Your task to perform on an android device: Clear the cart on costco. Add razer blade to the cart on costco Image 0: 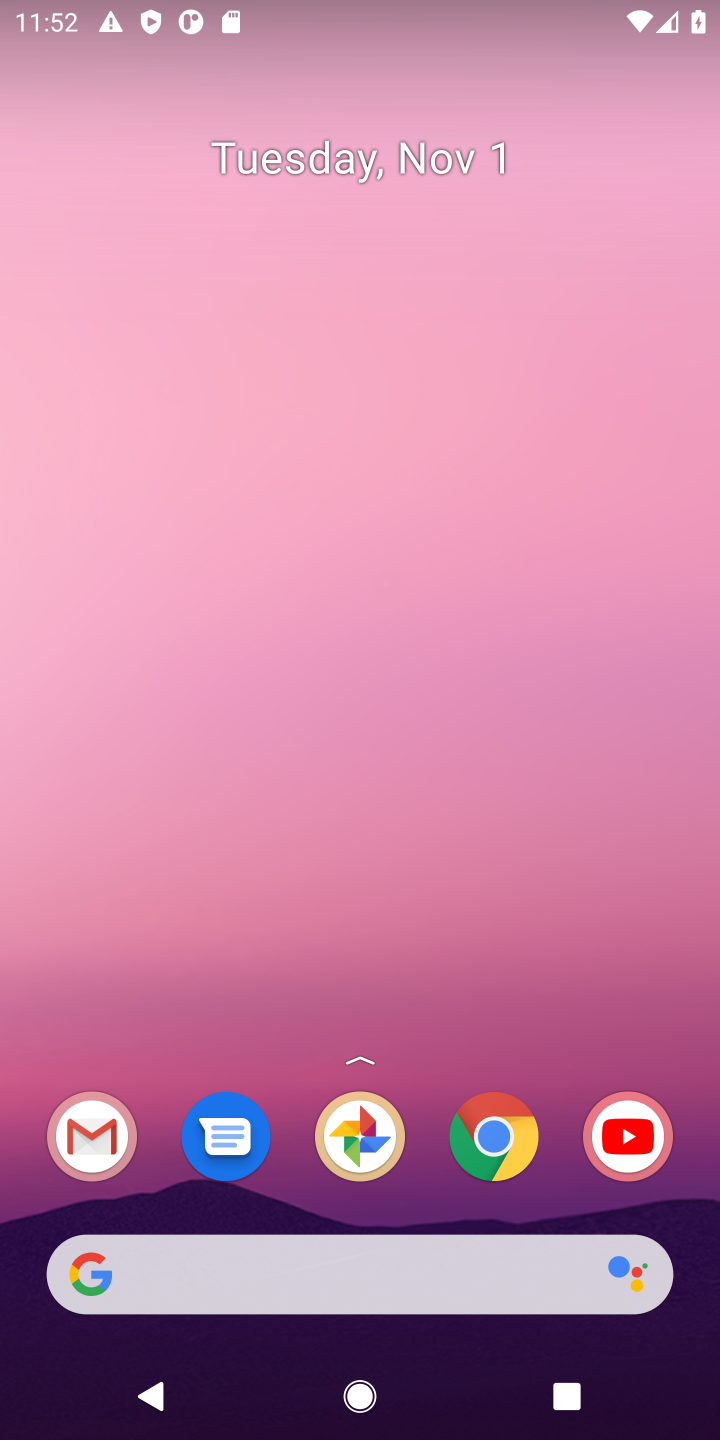
Step 0: click (481, 1143)
Your task to perform on an android device: Clear the cart on costco. Add razer blade to the cart on costco Image 1: 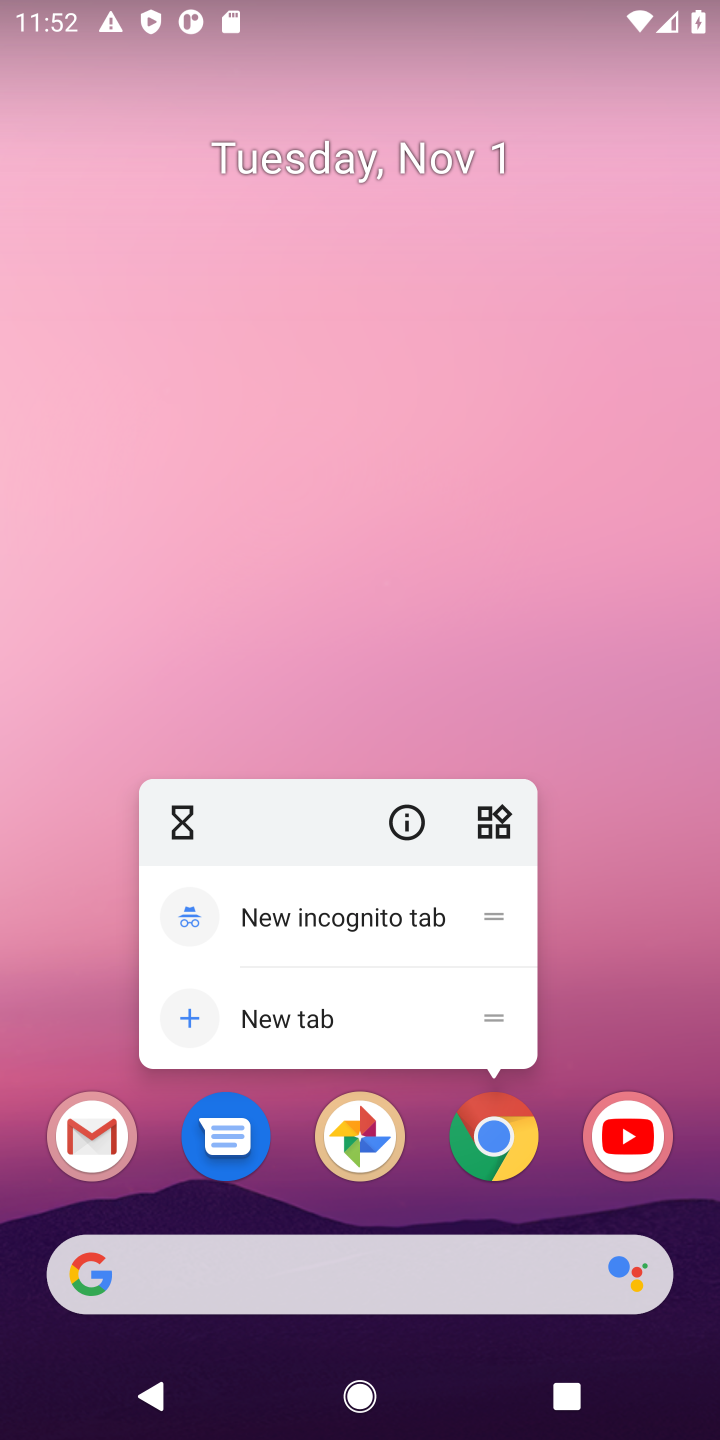
Step 1: click (499, 1169)
Your task to perform on an android device: Clear the cart on costco. Add razer blade to the cart on costco Image 2: 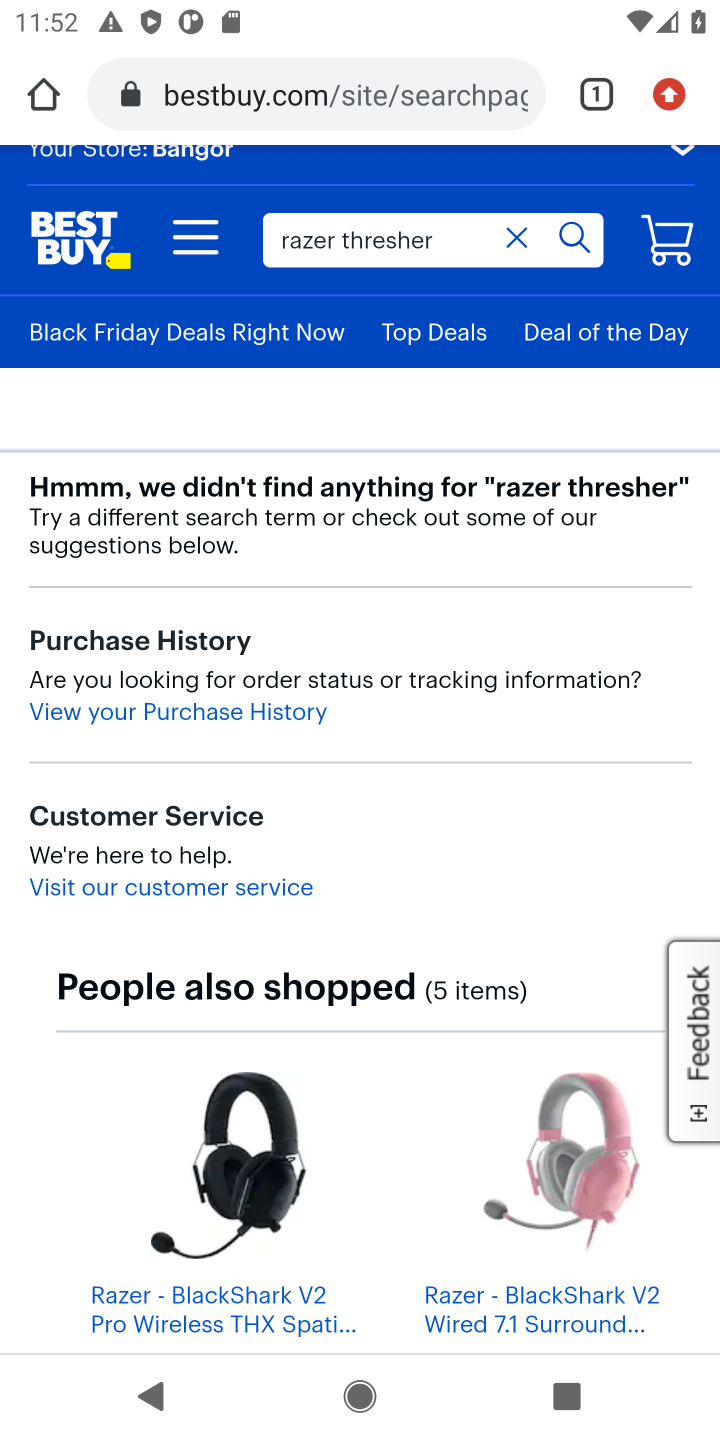
Step 2: click (487, 82)
Your task to perform on an android device: Clear the cart on costco. Add razer blade to the cart on costco Image 3: 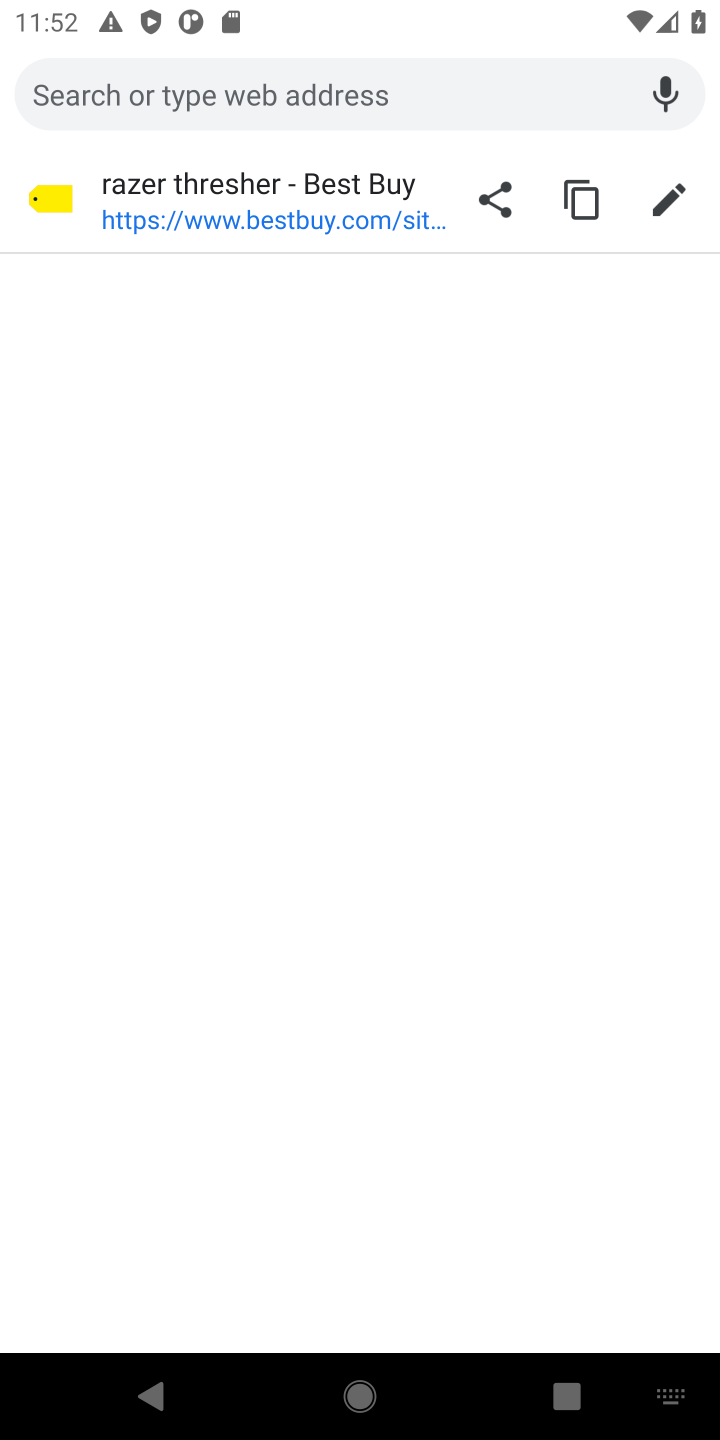
Step 3: type "costoco"
Your task to perform on an android device: Clear the cart on costco. Add razer blade to the cart on costco Image 4: 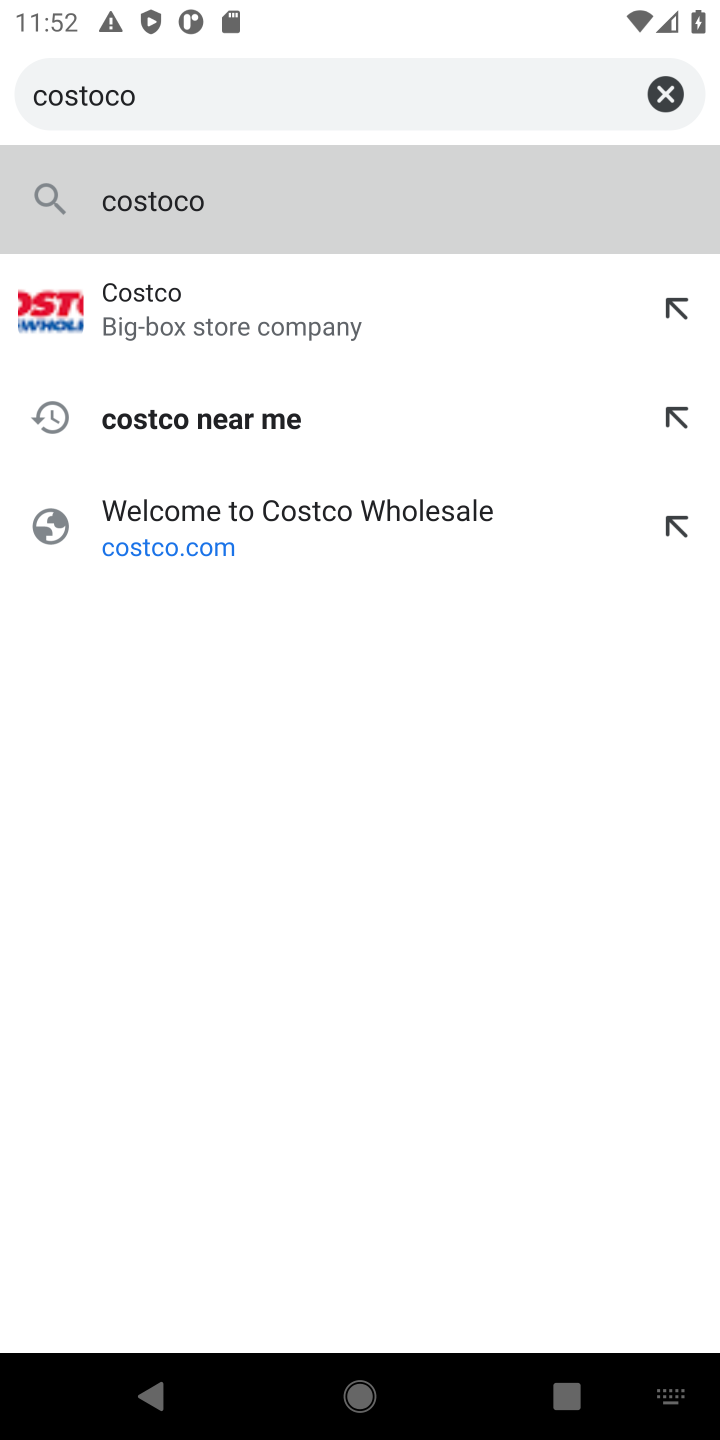
Step 4: type ""
Your task to perform on an android device: Clear the cart on costco. Add razer blade to the cart on costco Image 5: 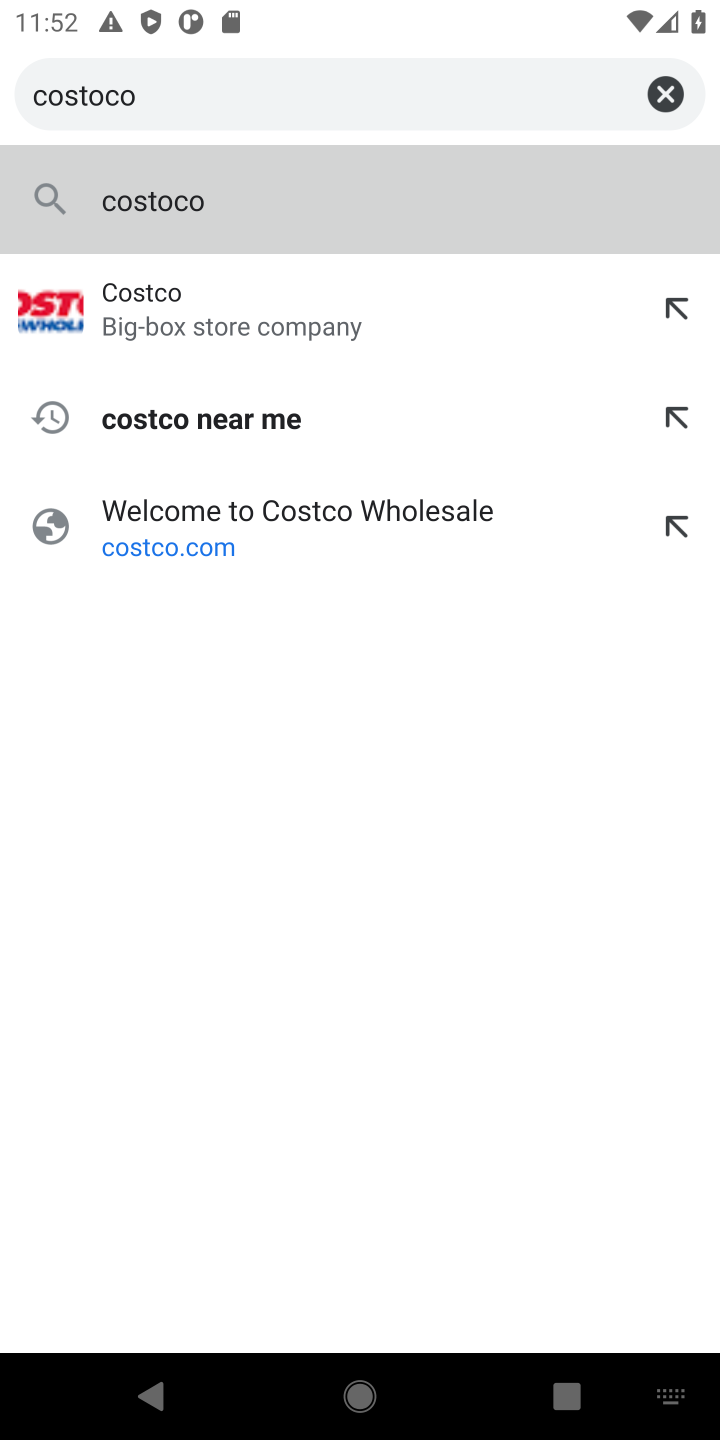
Step 5: click (200, 326)
Your task to perform on an android device: Clear the cart on costco. Add razer blade to the cart on costco Image 6: 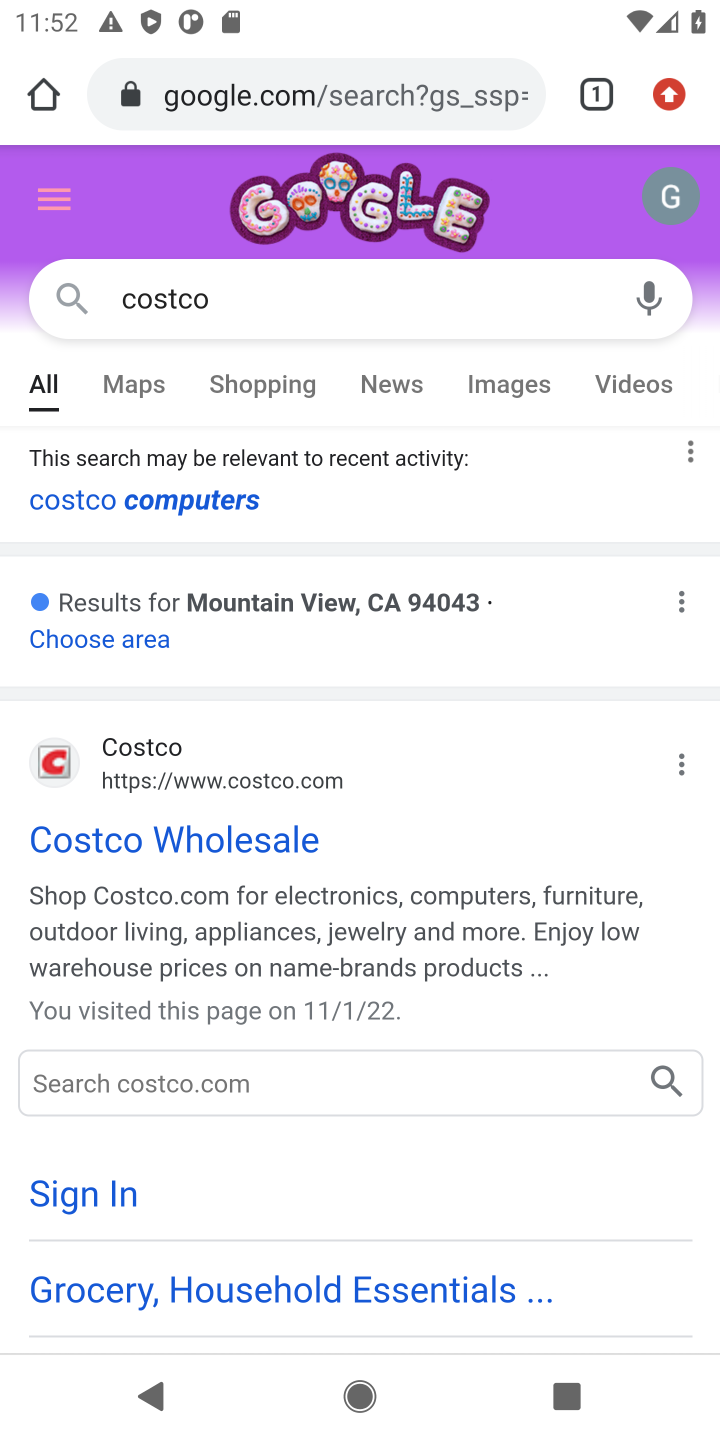
Step 6: click (193, 847)
Your task to perform on an android device: Clear the cart on costco. Add razer blade to the cart on costco Image 7: 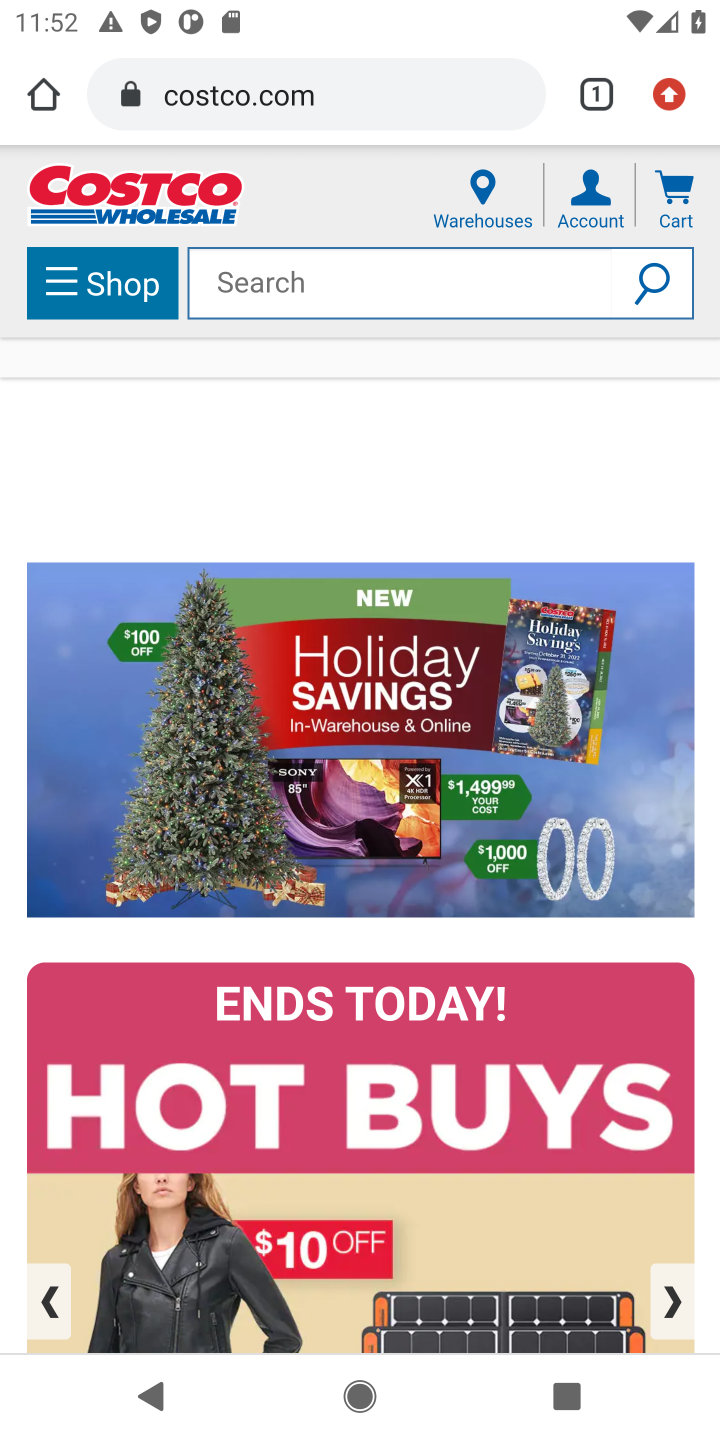
Step 7: click (256, 288)
Your task to perform on an android device: Clear the cart on costco. Add razer blade to the cart on costco Image 8: 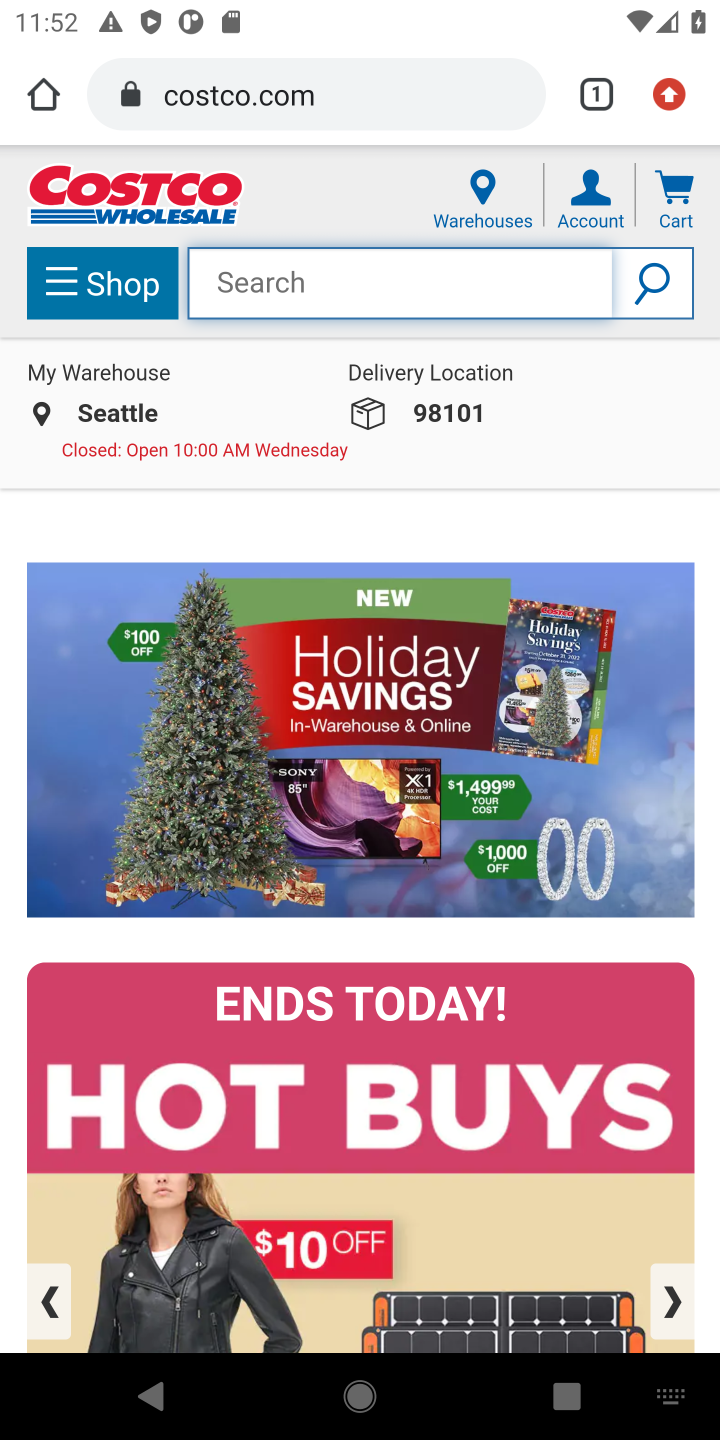
Step 8: type "razer blade"
Your task to perform on an android device: Clear the cart on costco. Add razer blade to the cart on costco Image 9: 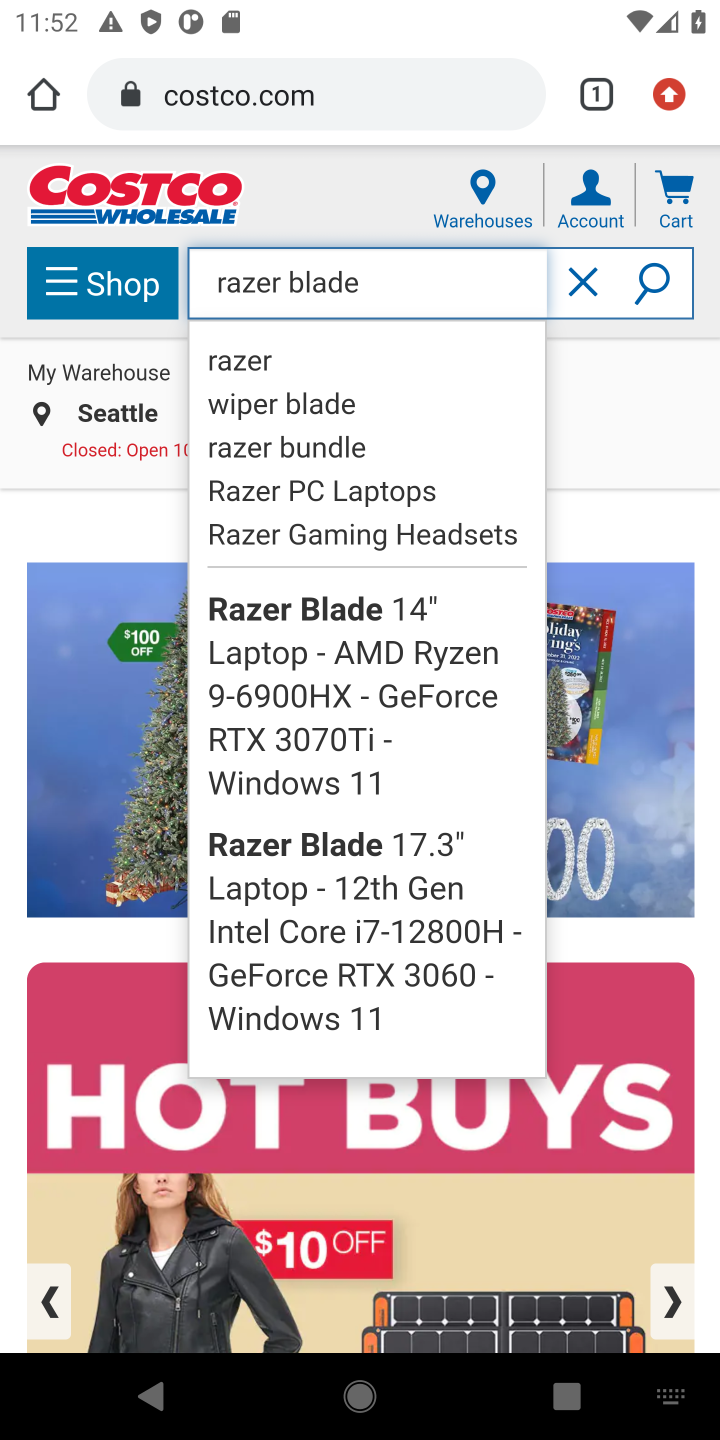
Step 9: click (677, 286)
Your task to perform on an android device: Clear the cart on costco. Add razer blade to the cart on costco Image 10: 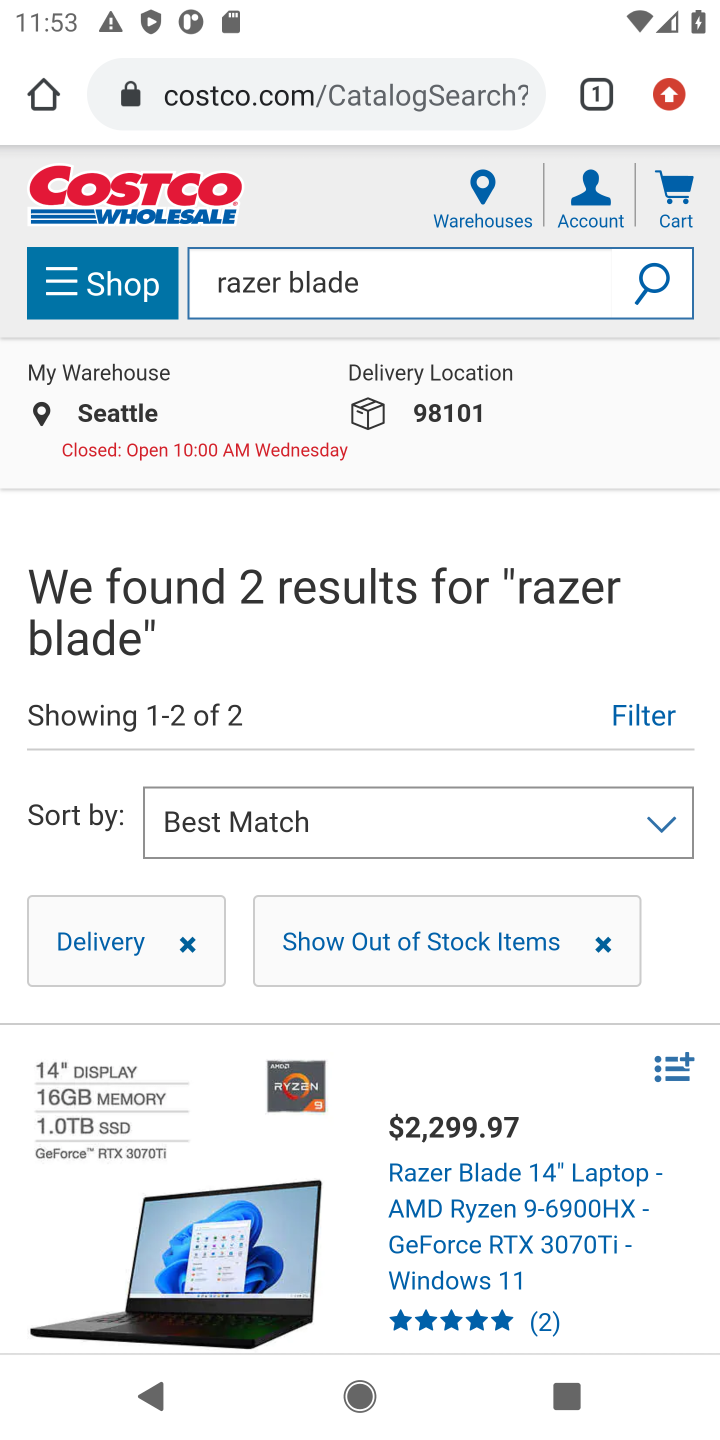
Step 10: click (517, 1199)
Your task to perform on an android device: Clear the cart on costco. Add razer blade to the cart on costco Image 11: 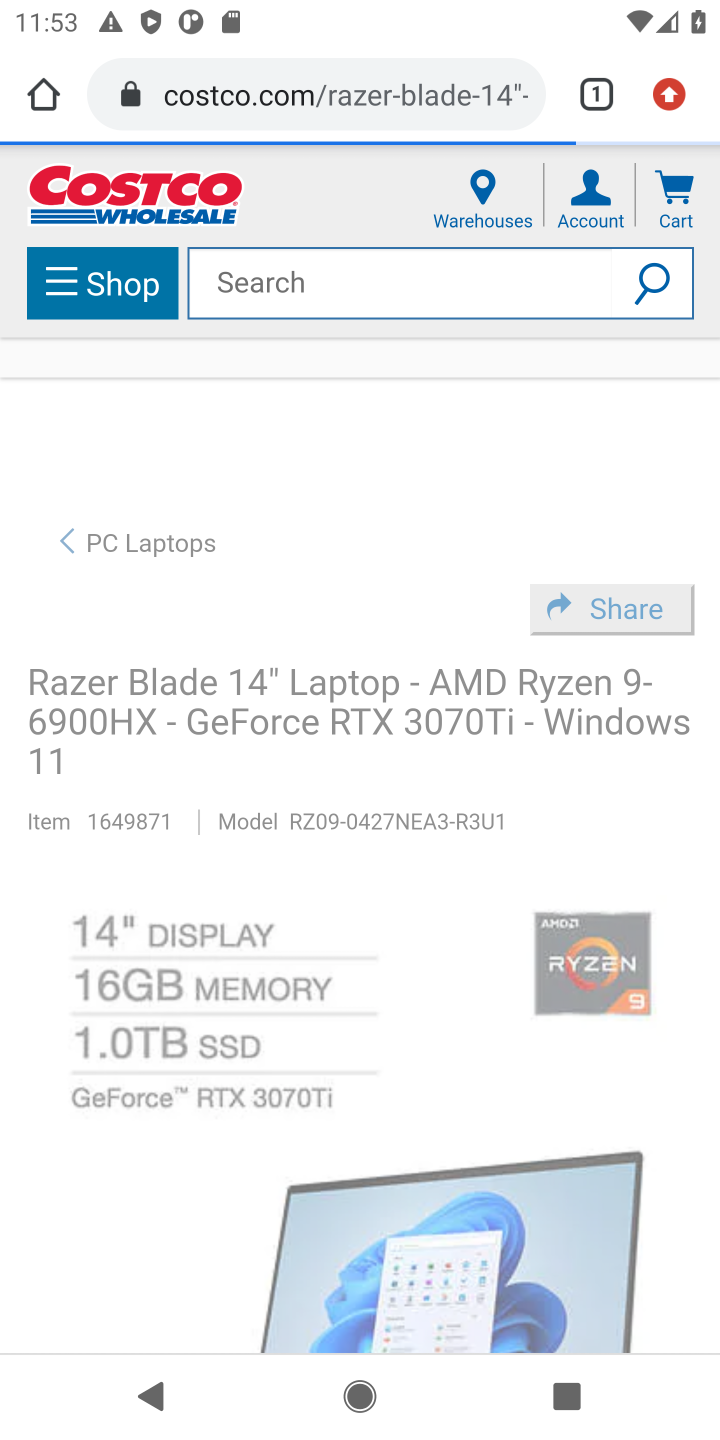
Step 11: drag from (495, 1311) to (460, 593)
Your task to perform on an android device: Clear the cart on costco. Add razer blade to the cart on costco Image 12: 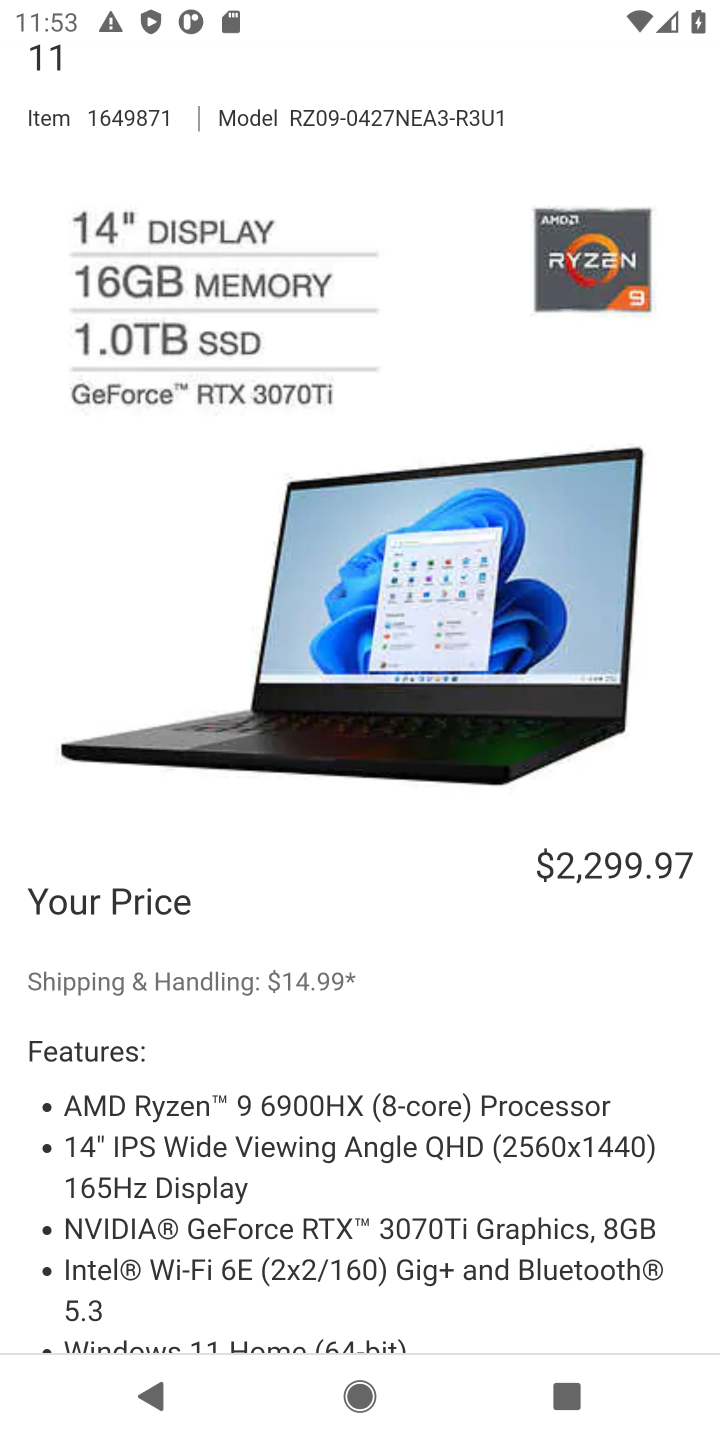
Step 12: drag from (482, 1091) to (469, 613)
Your task to perform on an android device: Clear the cart on costco. Add razer blade to the cart on costco Image 13: 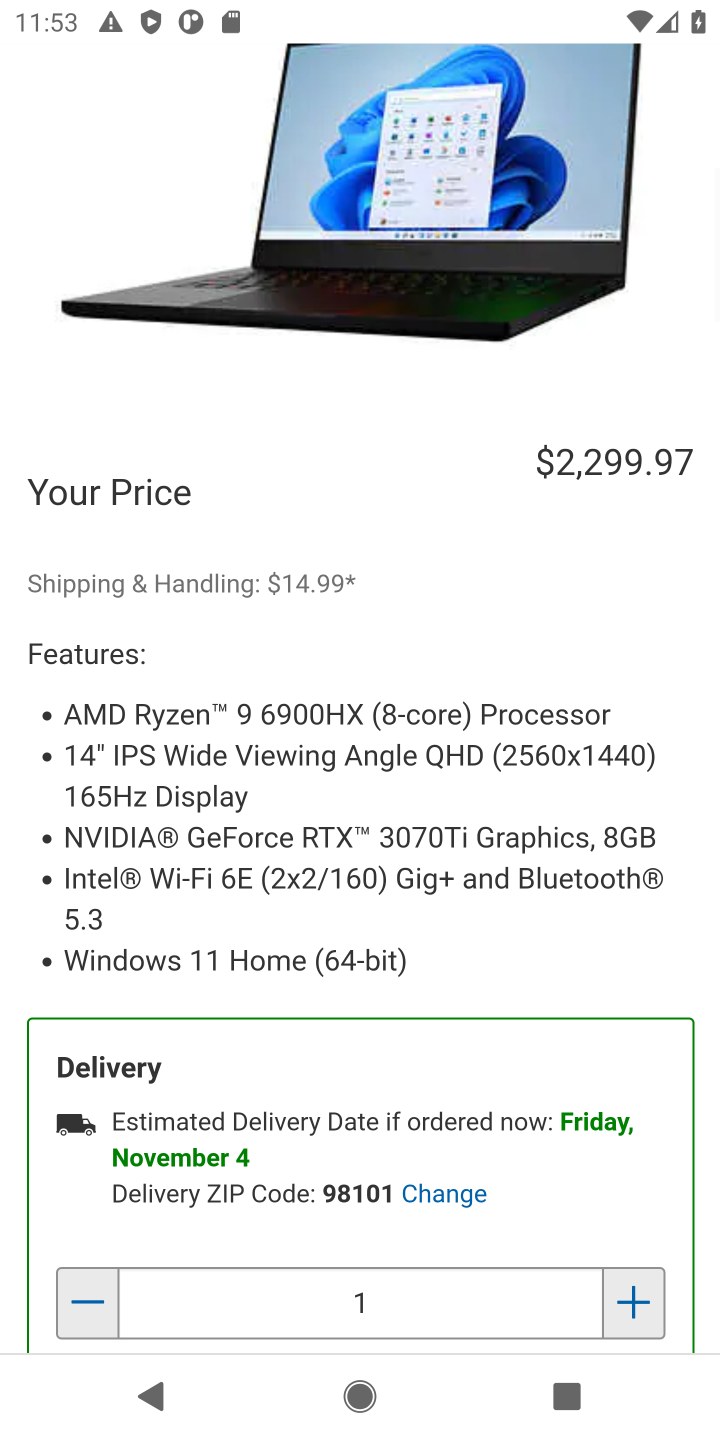
Step 13: drag from (485, 1199) to (480, 672)
Your task to perform on an android device: Clear the cart on costco. Add razer blade to the cart on costco Image 14: 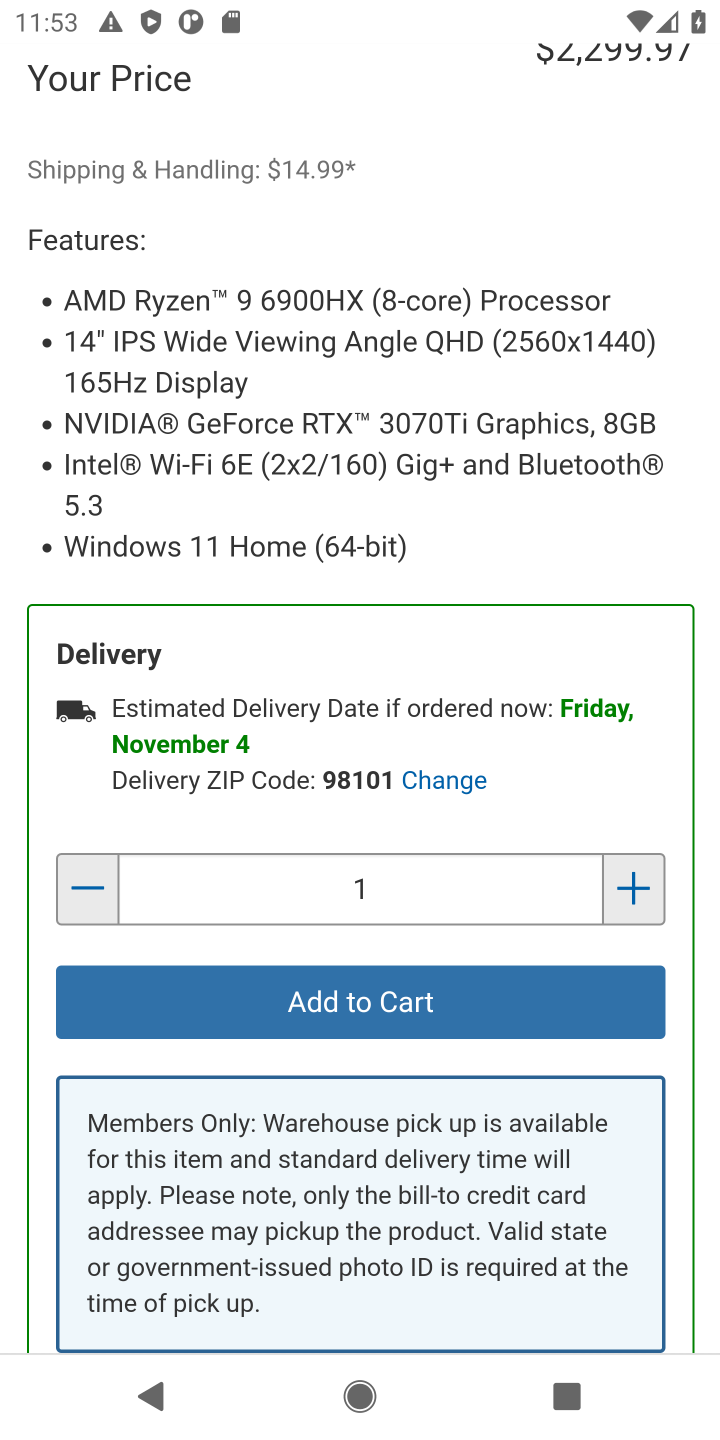
Step 14: click (410, 997)
Your task to perform on an android device: Clear the cart on costco. Add razer blade to the cart on costco Image 15: 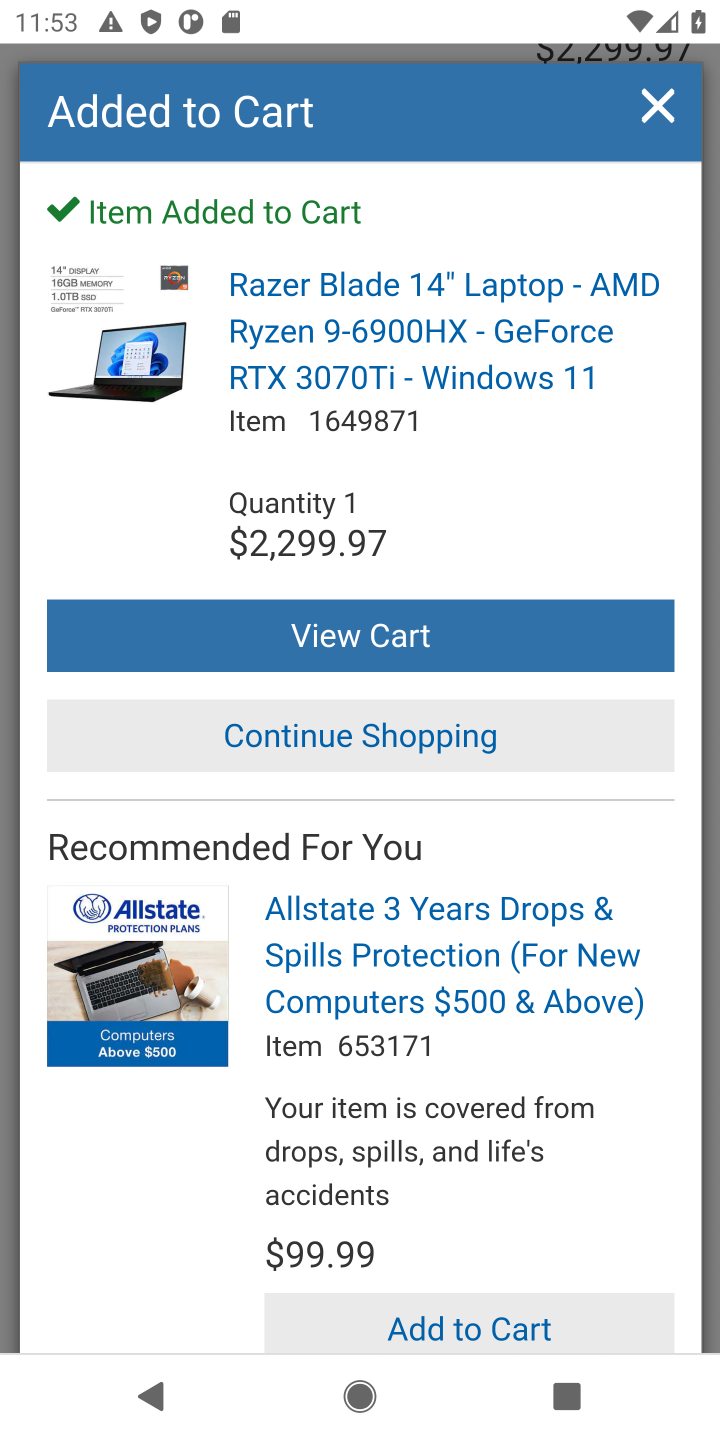
Step 15: click (399, 640)
Your task to perform on an android device: Clear the cart on costco. Add razer blade to the cart on costco Image 16: 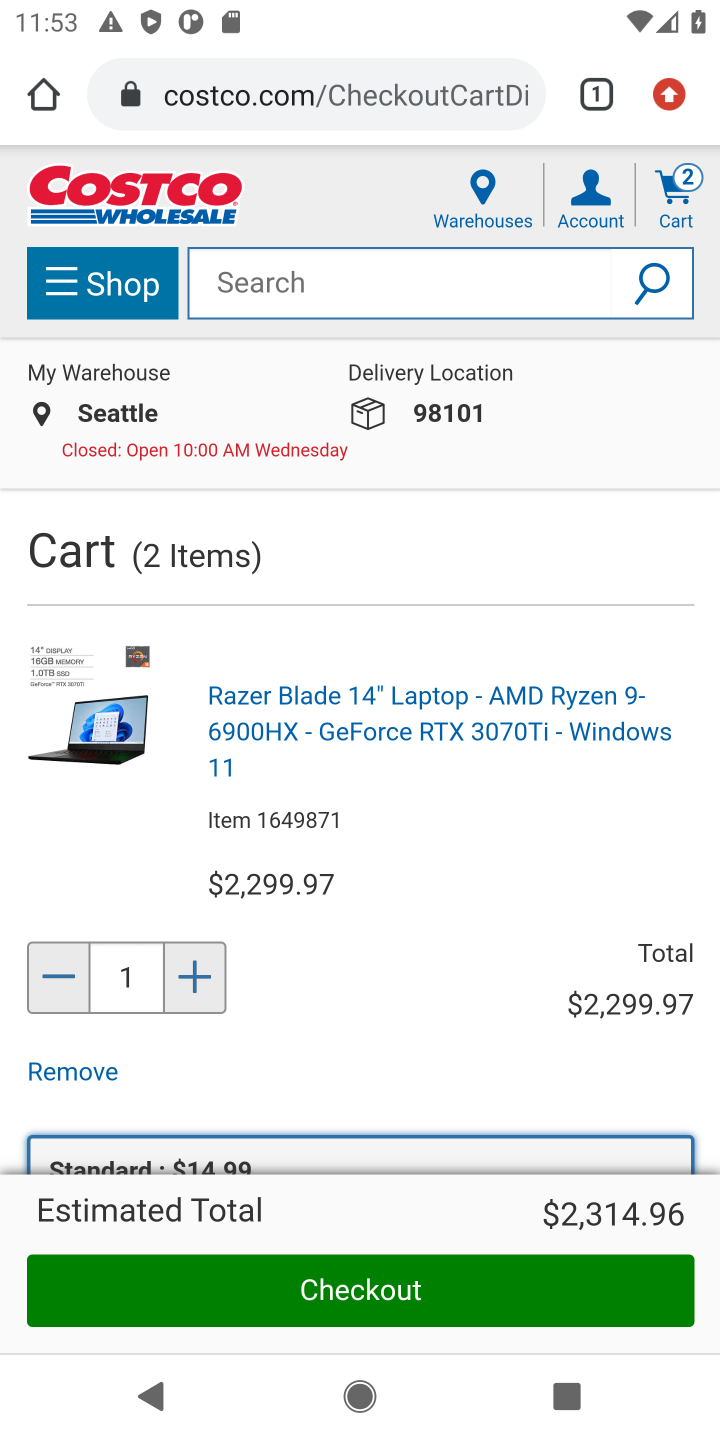
Step 16: click (435, 1305)
Your task to perform on an android device: Clear the cart on costco. Add razer blade to the cart on costco Image 17: 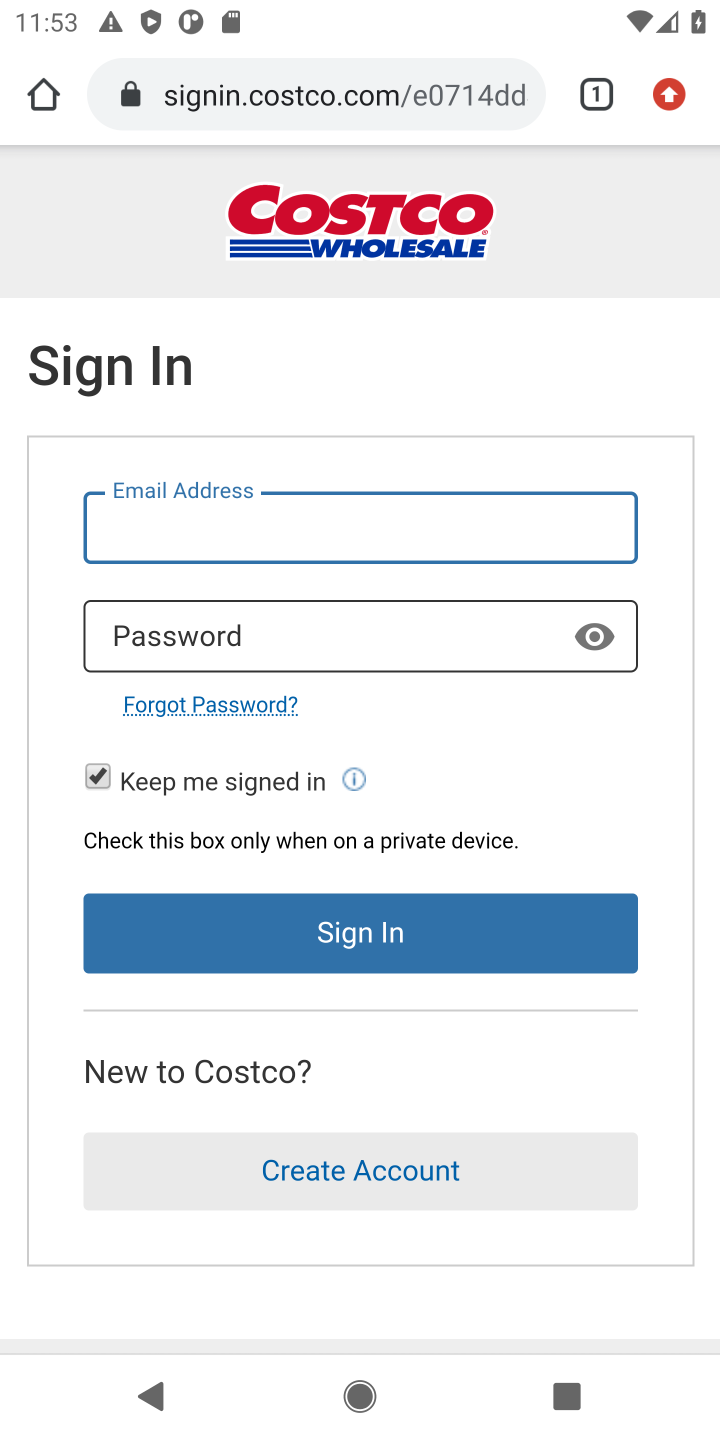
Step 17: press back button
Your task to perform on an android device: Clear the cart on costco. Add razer blade to the cart on costco Image 18: 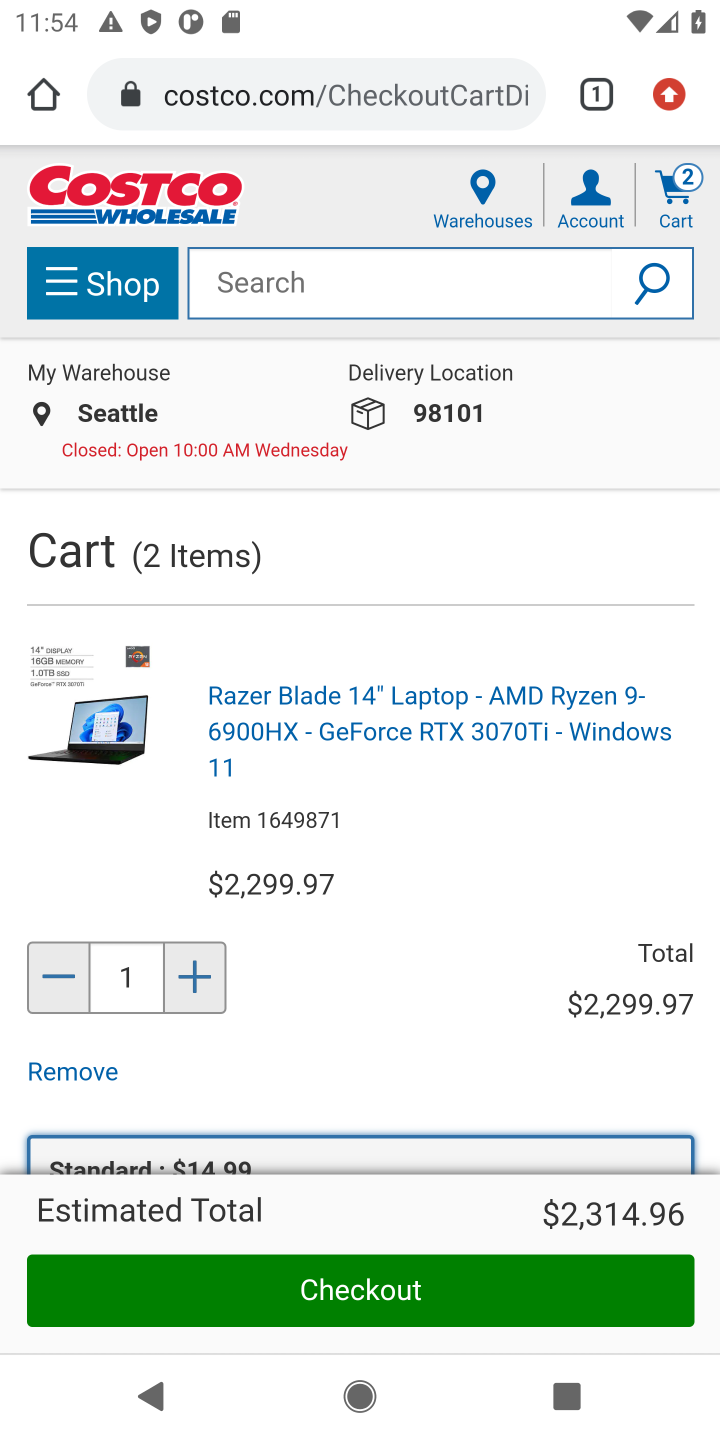
Step 18: click (292, 1282)
Your task to perform on an android device: Clear the cart on costco. Add razer blade to the cart on costco Image 19: 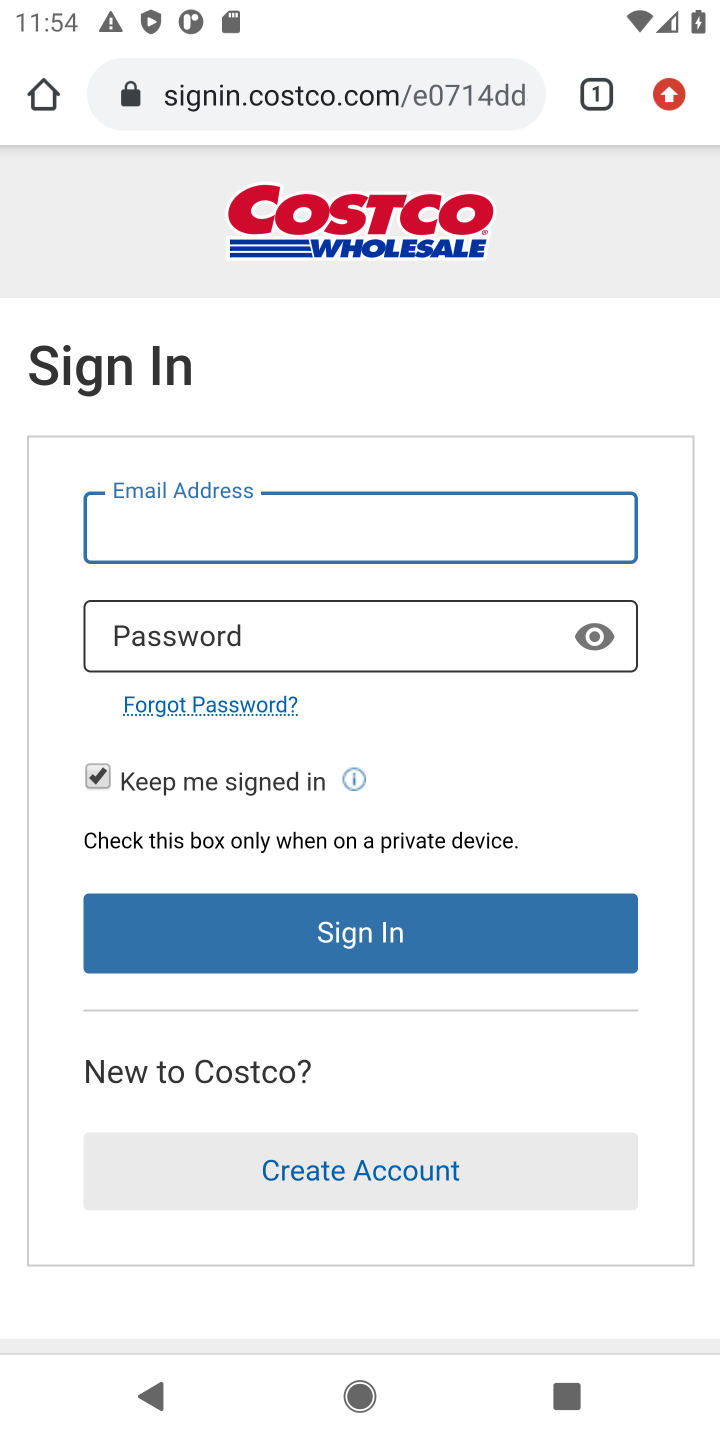
Step 19: task complete